Your task to perform on an android device: Open CNN.com Image 0: 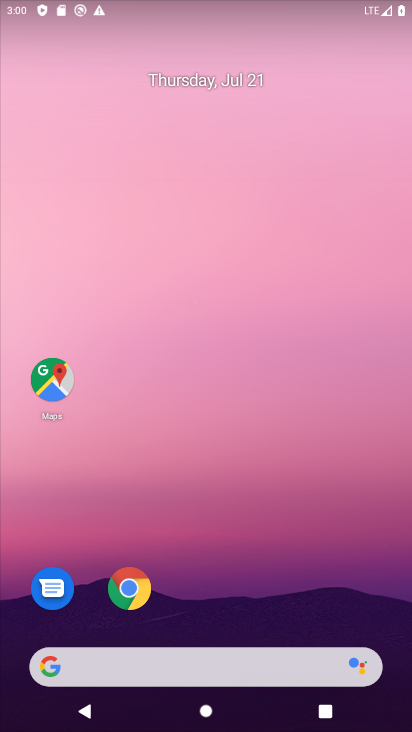
Step 0: click (141, 580)
Your task to perform on an android device: Open CNN.com Image 1: 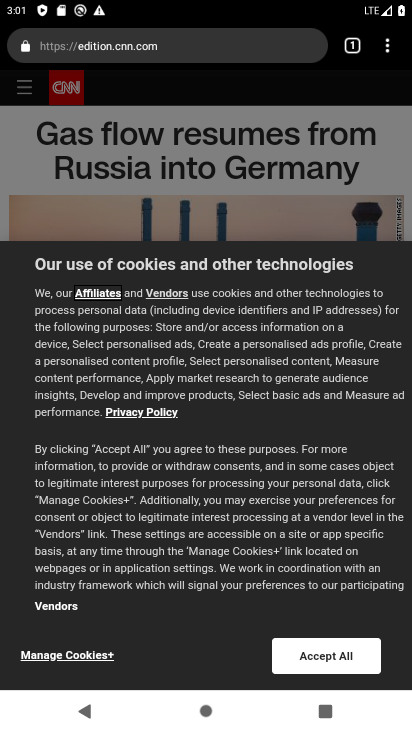
Step 1: task complete